Your task to perform on an android device: Go to Wikipedia Image 0: 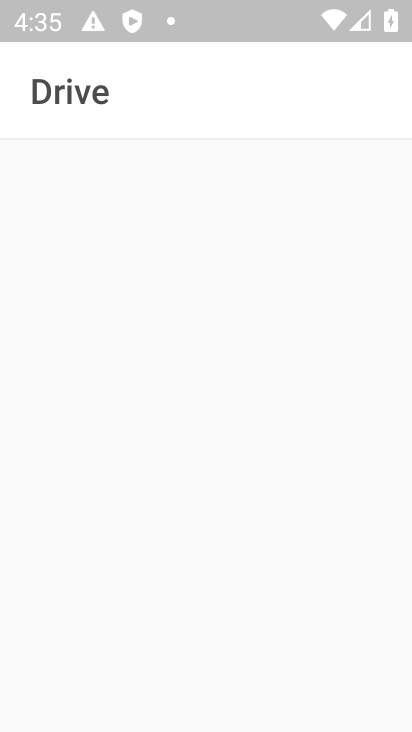
Step 0: press home button
Your task to perform on an android device: Go to Wikipedia Image 1: 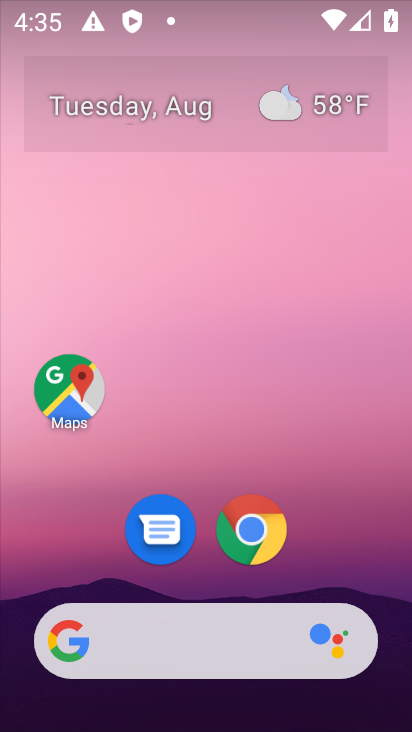
Step 1: click (274, 545)
Your task to perform on an android device: Go to Wikipedia Image 2: 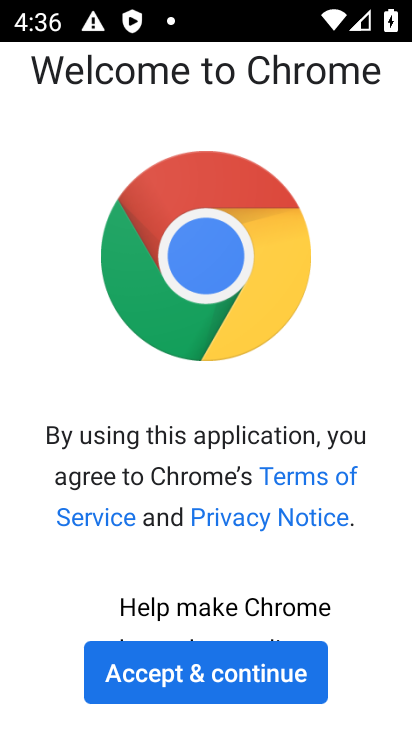
Step 2: click (279, 667)
Your task to perform on an android device: Go to Wikipedia Image 3: 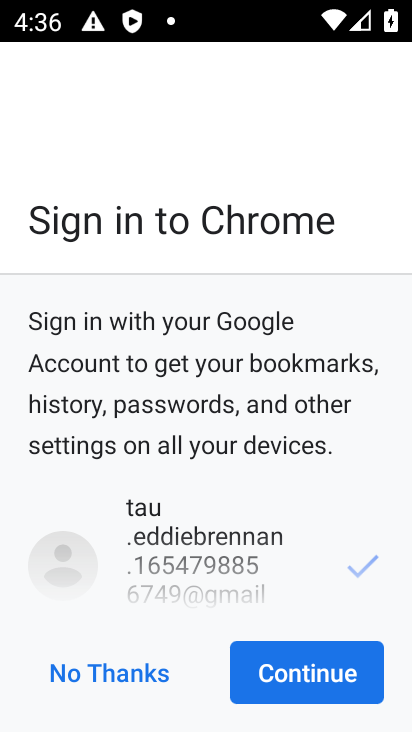
Step 3: click (285, 672)
Your task to perform on an android device: Go to Wikipedia Image 4: 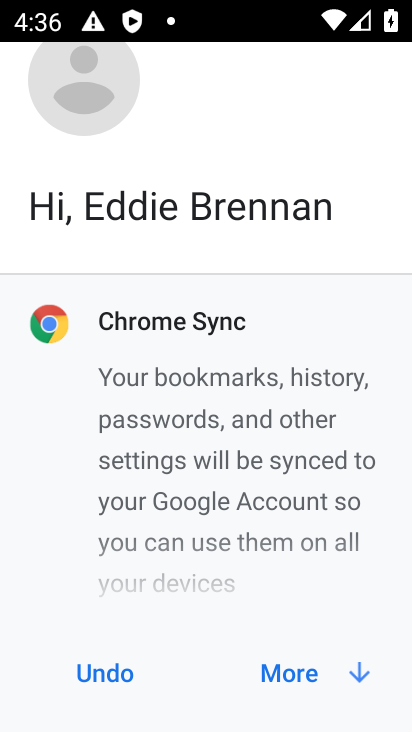
Step 4: click (285, 672)
Your task to perform on an android device: Go to Wikipedia Image 5: 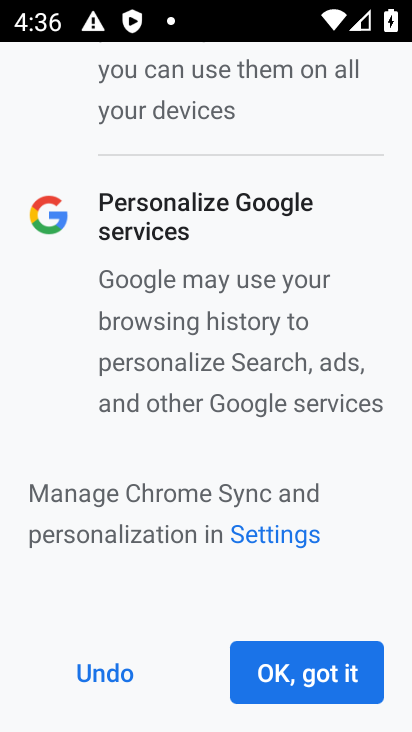
Step 5: click (285, 684)
Your task to perform on an android device: Go to Wikipedia Image 6: 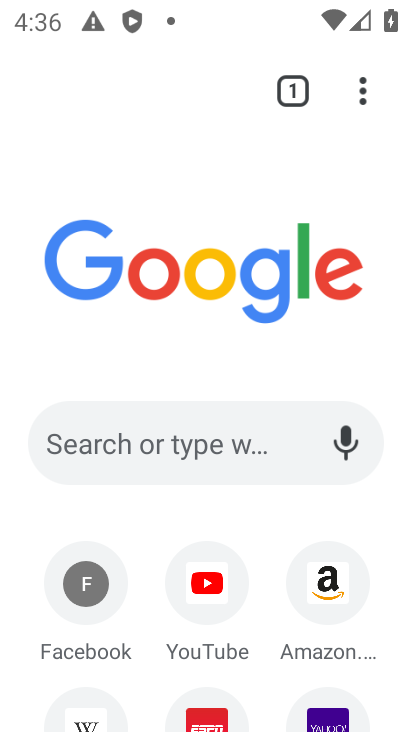
Step 6: drag from (198, 552) to (263, 212)
Your task to perform on an android device: Go to Wikipedia Image 7: 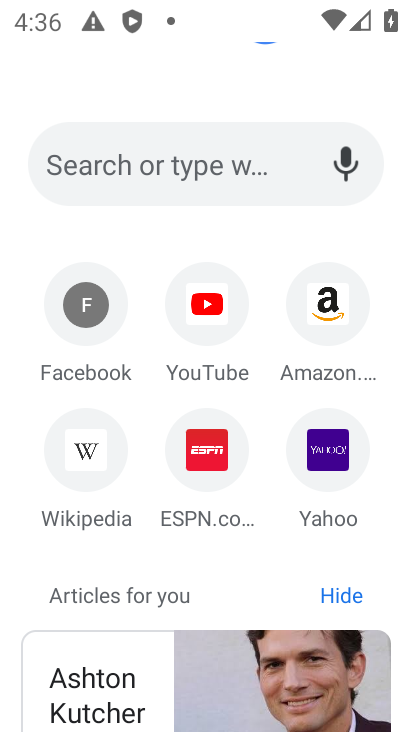
Step 7: click (86, 466)
Your task to perform on an android device: Go to Wikipedia Image 8: 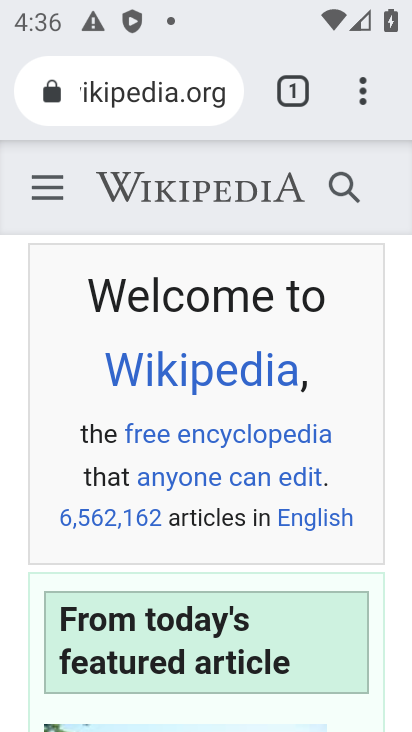
Step 8: task complete